Your task to perform on an android device: Set an alarm for 12pm Image 0: 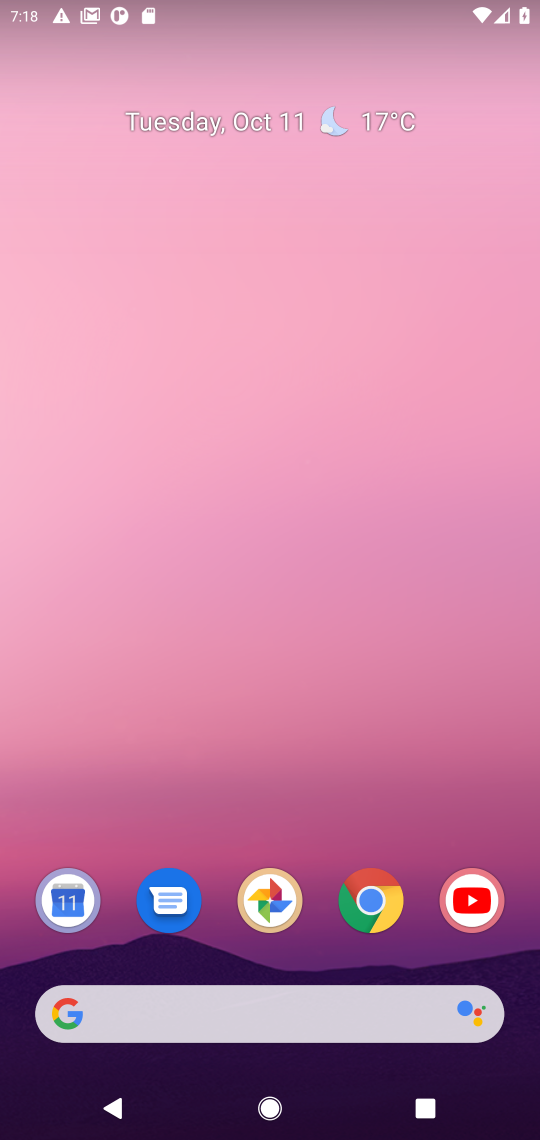
Step 0: drag from (207, 1024) to (390, 134)
Your task to perform on an android device: Set an alarm for 12pm Image 1: 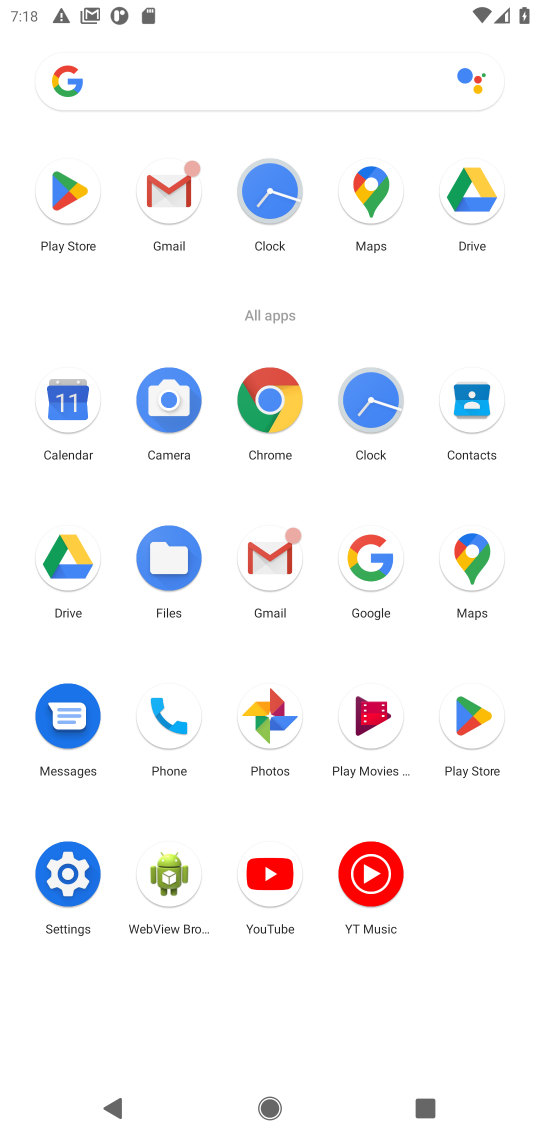
Step 1: click (379, 401)
Your task to perform on an android device: Set an alarm for 12pm Image 2: 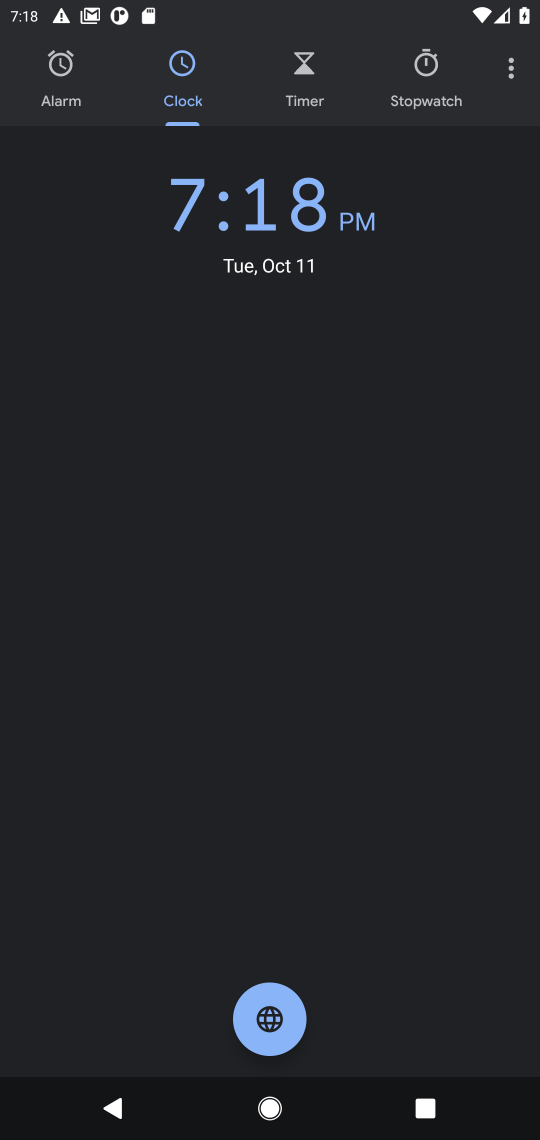
Step 2: click (44, 87)
Your task to perform on an android device: Set an alarm for 12pm Image 3: 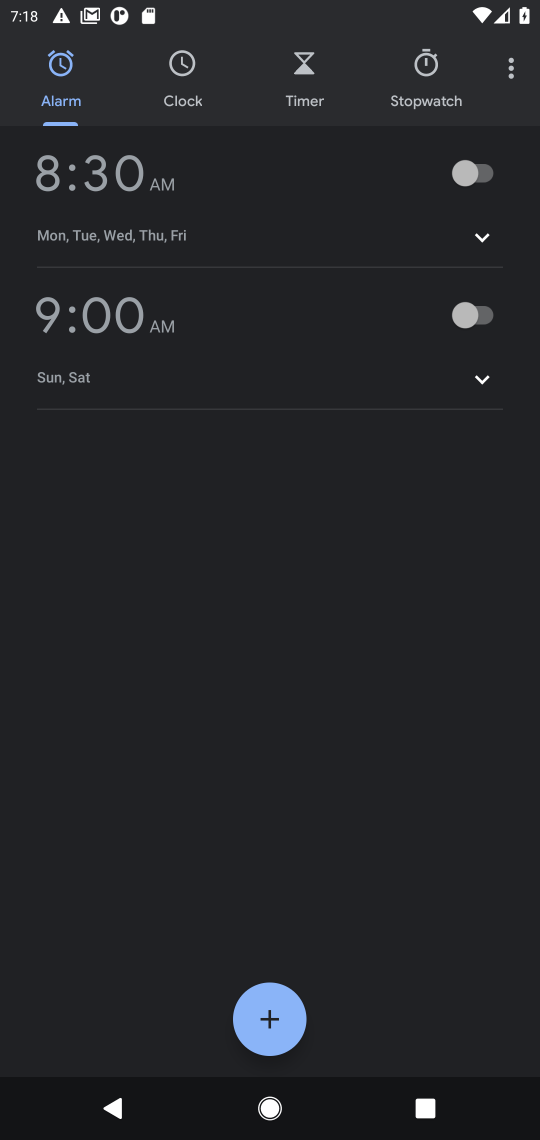
Step 3: click (161, 200)
Your task to perform on an android device: Set an alarm for 12pm Image 4: 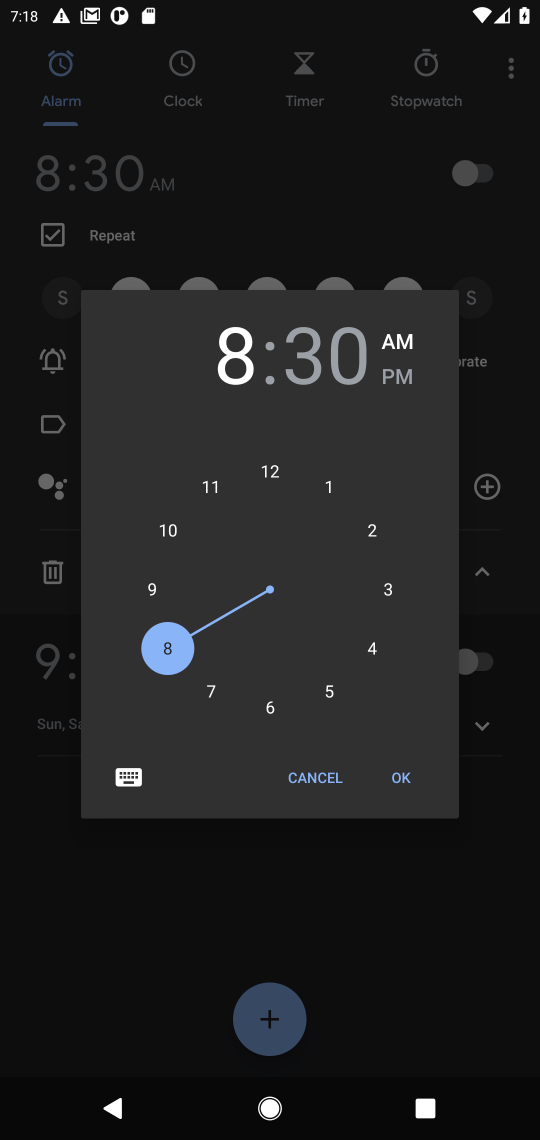
Step 4: click (269, 464)
Your task to perform on an android device: Set an alarm for 12pm Image 5: 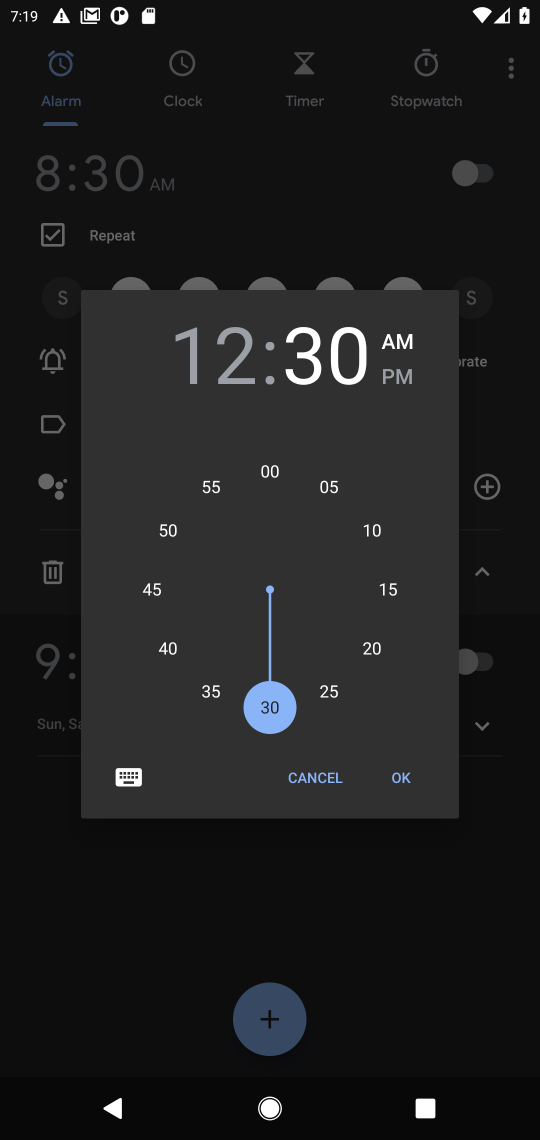
Step 5: click (279, 472)
Your task to perform on an android device: Set an alarm for 12pm Image 6: 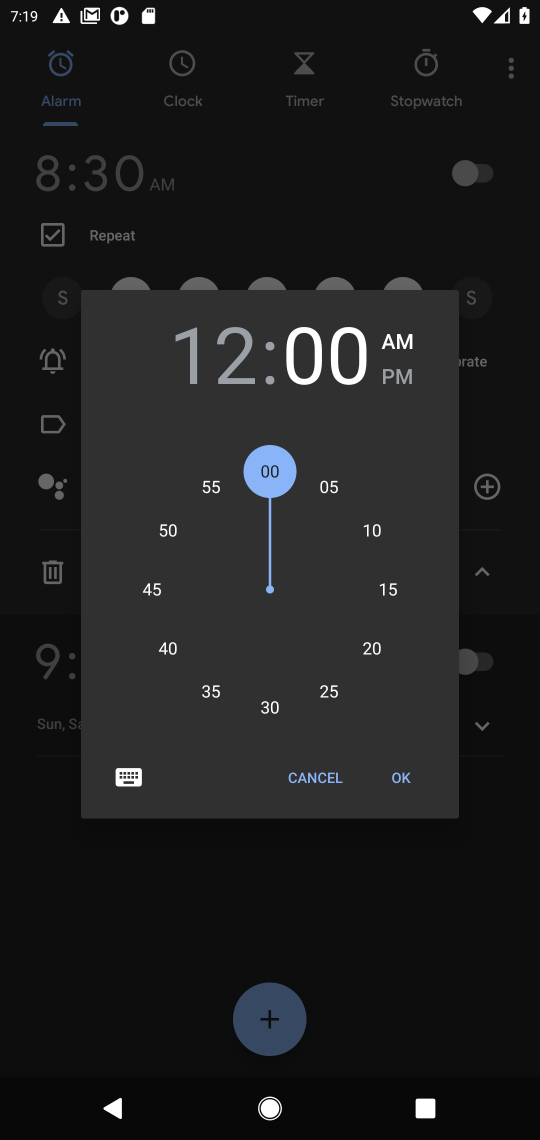
Step 6: click (405, 382)
Your task to perform on an android device: Set an alarm for 12pm Image 7: 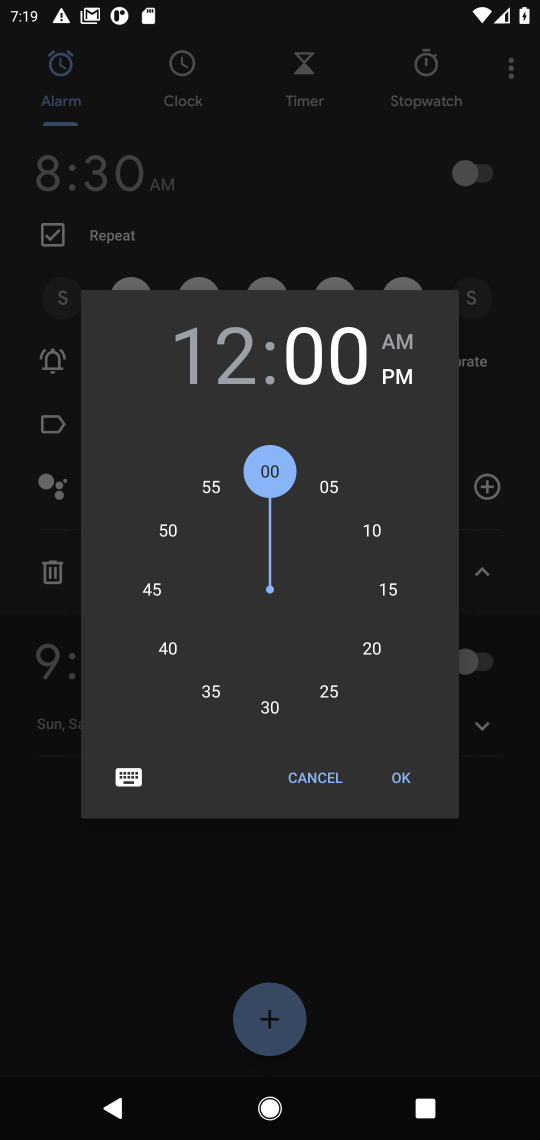
Step 7: click (405, 787)
Your task to perform on an android device: Set an alarm for 12pm Image 8: 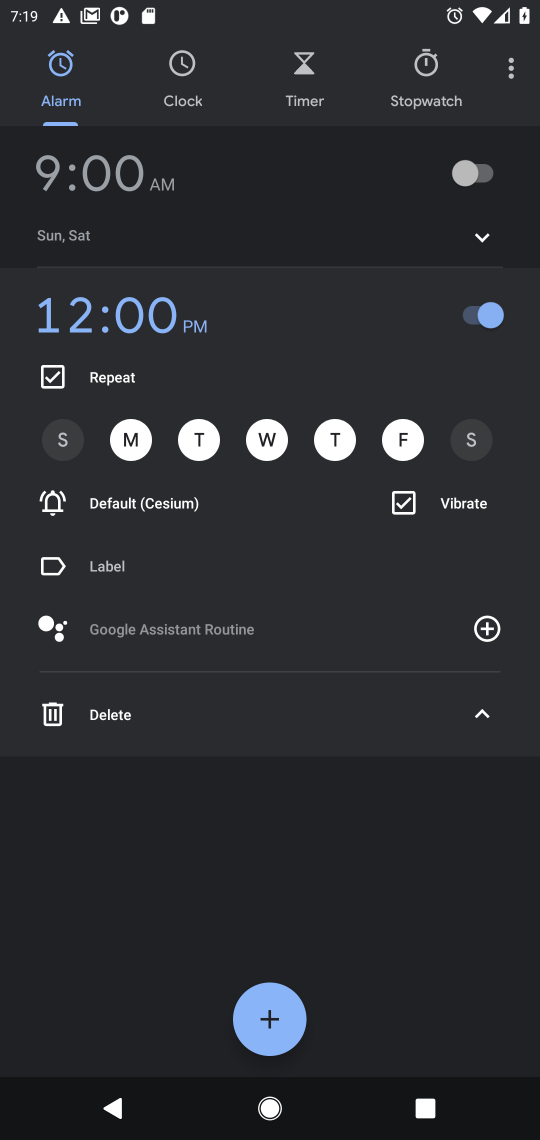
Step 8: task complete